Your task to perform on an android device: Search for the best movies of 2019  Image 0: 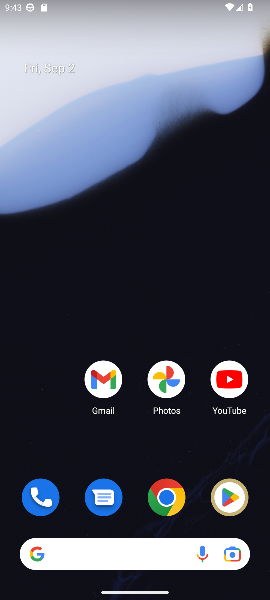
Step 0: drag from (143, 509) to (150, 39)
Your task to perform on an android device: Search for the best movies of 2019  Image 1: 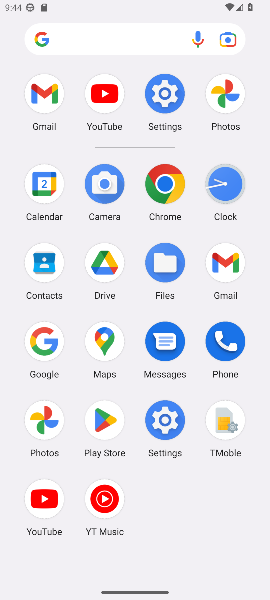
Step 1: click (49, 340)
Your task to perform on an android device: Search for the best movies of 2019  Image 2: 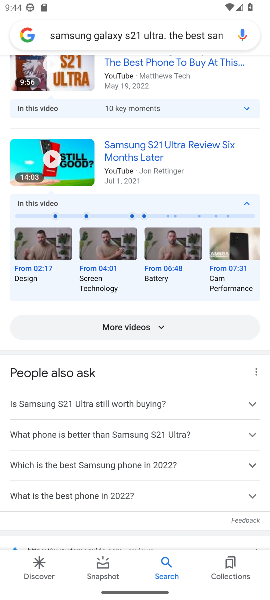
Step 2: click (182, 43)
Your task to perform on an android device: Search for the best movies of 2019  Image 3: 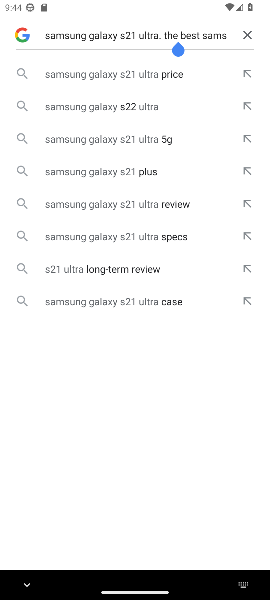
Step 3: click (241, 35)
Your task to perform on an android device: Search for the best movies of 2019  Image 4: 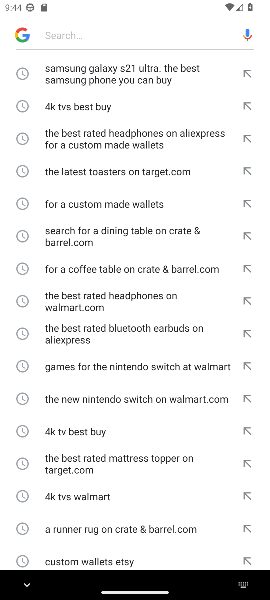
Step 4: click (149, 35)
Your task to perform on an android device: Search for the best movies of 2019  Image 5: 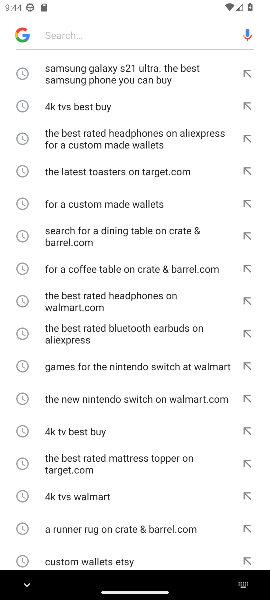
Step 5: type "the best movies of 2019"
Your task to perform on an android device: Search for the best movies of 2019  Image 6: 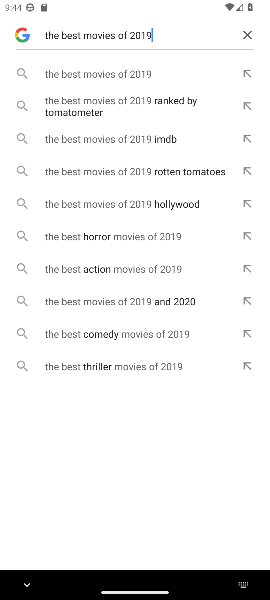
Step 6: click (119, 74)
Your task to perform on an android device: Search for the best movies of 2019  Image 7: 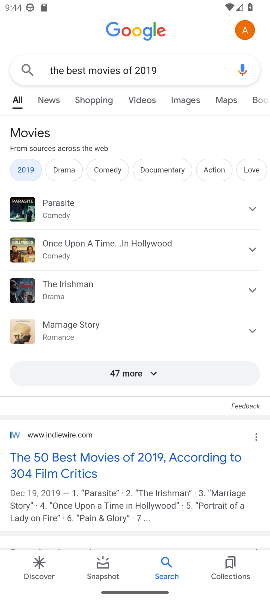
Step 7: task complete